Your task to perform on an android device: read, delete, or share a saved page in the chrome app Image 0: 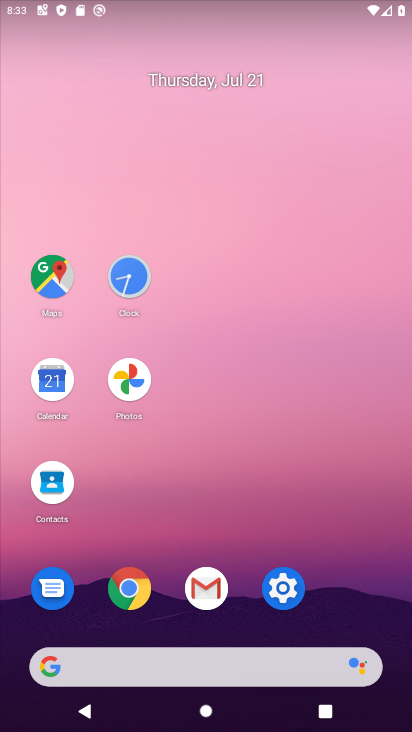
Step 0: click (119, 587)
Your task to perform on an android device: read, delete, or share a saved page in the chrome app Image 1: 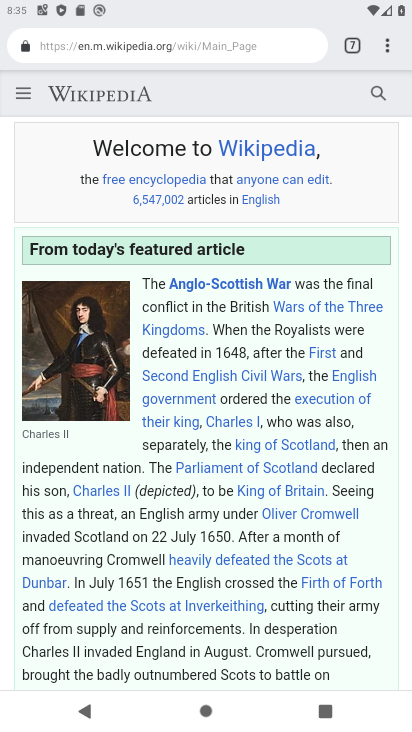
Step 1: click (387, 44)
Your task to perform on an android device: read, delete, or share a saved page in the chrome app Image 2: 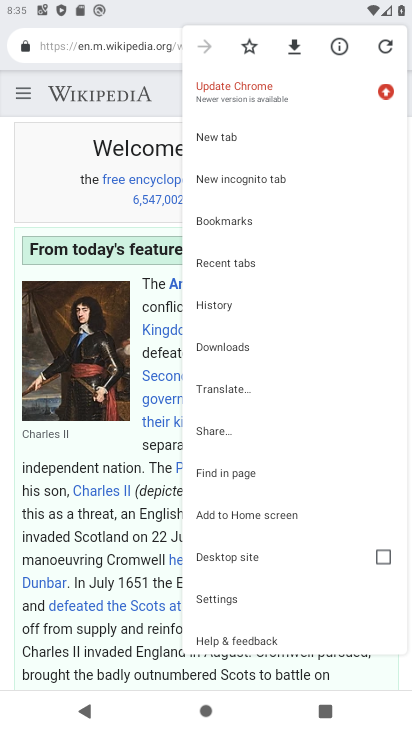
Step 2: click (221, 354)
Your task to perform on an android device: read, delete, or share a saved page in the chrome app Image 3: 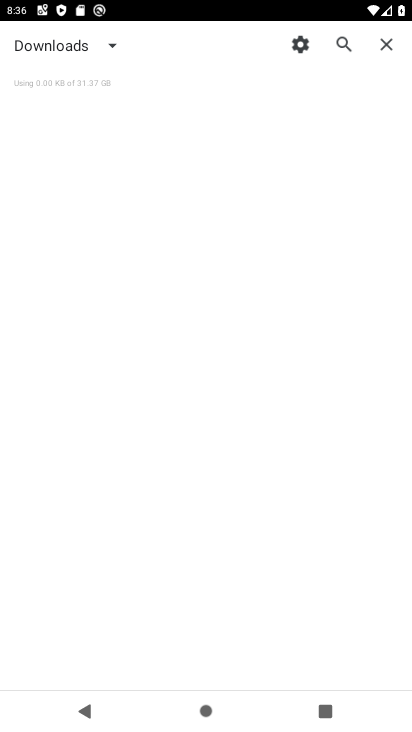
Step 3: task complete